Your task to perform on an android device: change the upload size in google photos Image 0: 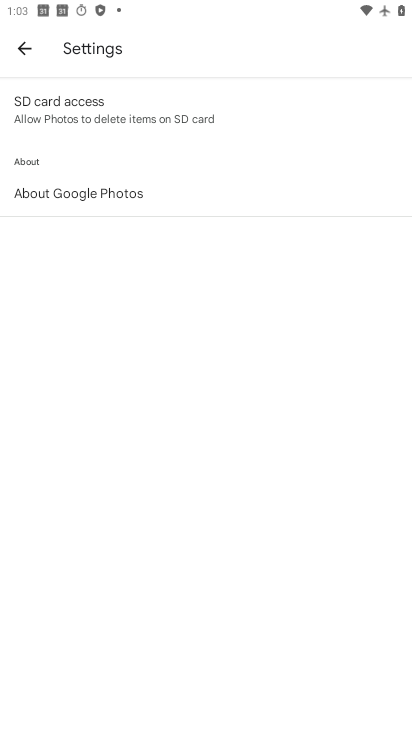
Step 0: press home button
Your task to perform on an android device: change the upload size in google photos Image 1: 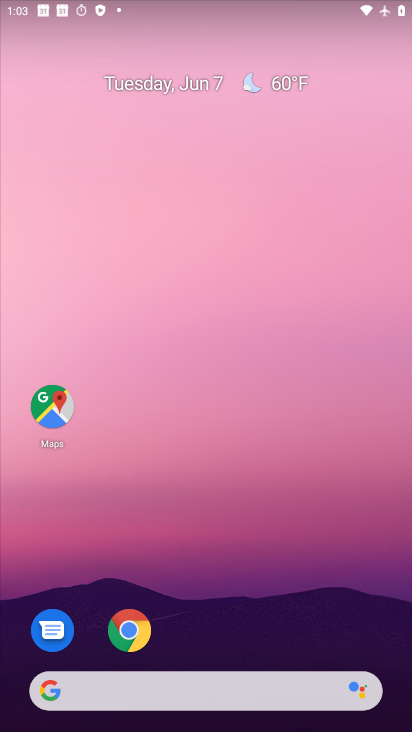
Step 1: drag from (400, 626) to (296, 91)
Your task to perform on an android device: change the upload size in google photos Image 2: 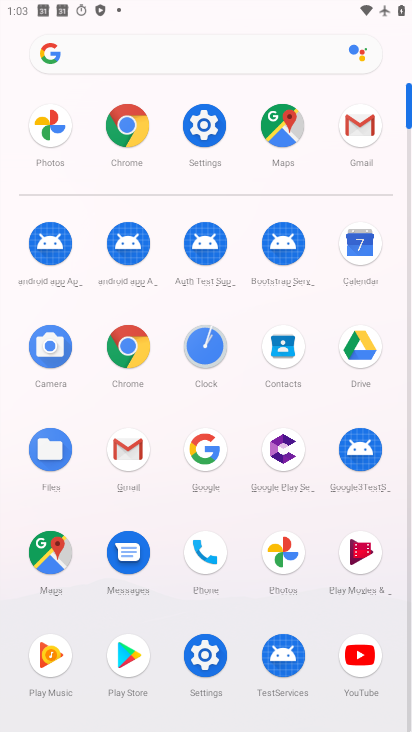
Step 2: click (280, 544)
Your task to perform on an android device: change the upload size in google photos Image 3: 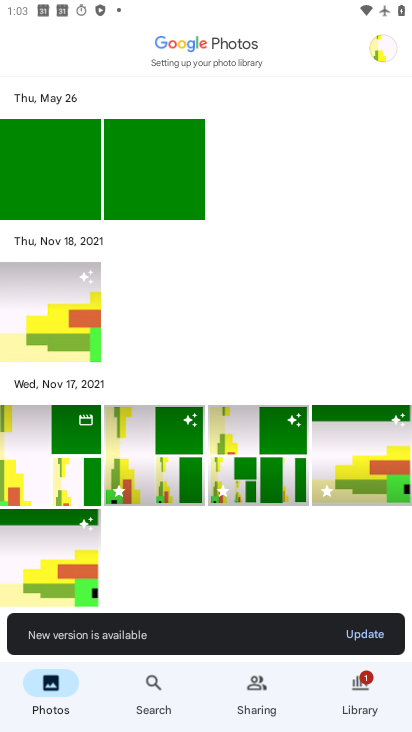
Step 3: click (390, 50)
Your task to perform on an android device: change the upload size in google photos Image 4: 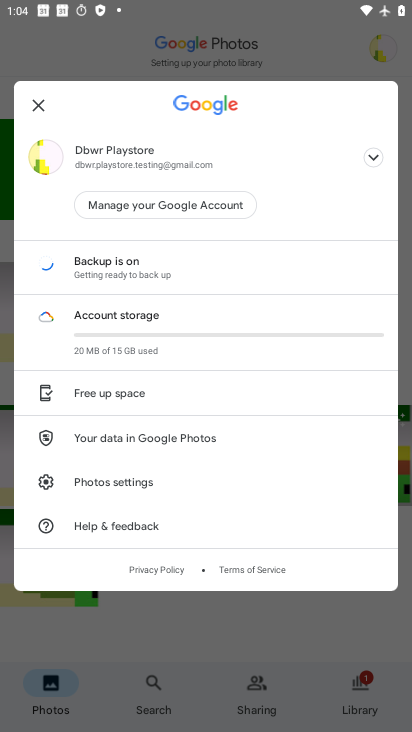
Step 4: click (142, 483)
Your task to perform on an android device: change the upload size in google photos Image 5: 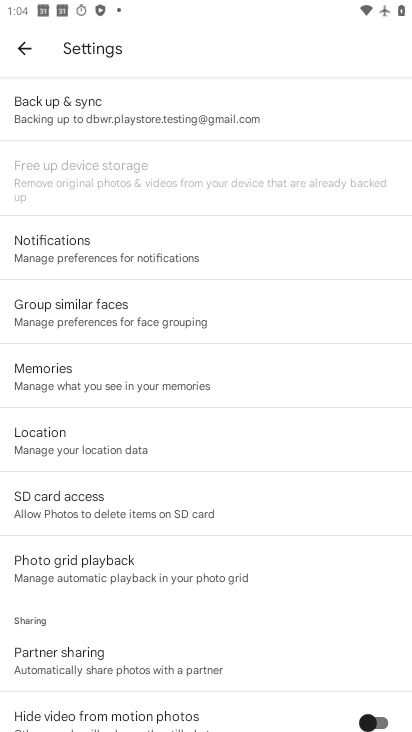
Step 5: click (113, 128)
Your task to perform on an android device: change the upload size in google photos Image 6: 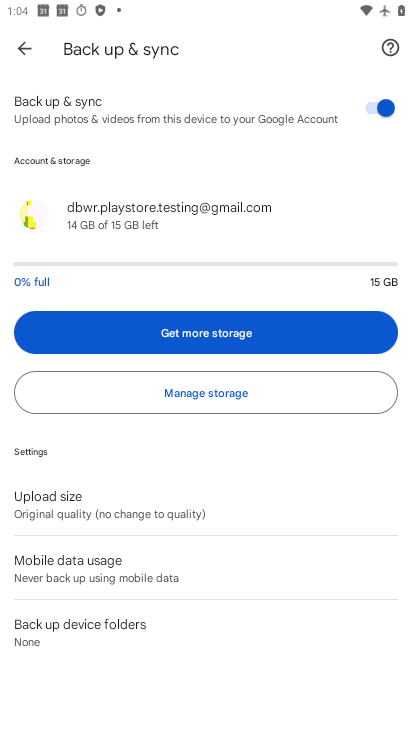
Step 6: click (152, 507)
Your task to perform on an android device: change the upload size in google photos Image 7: 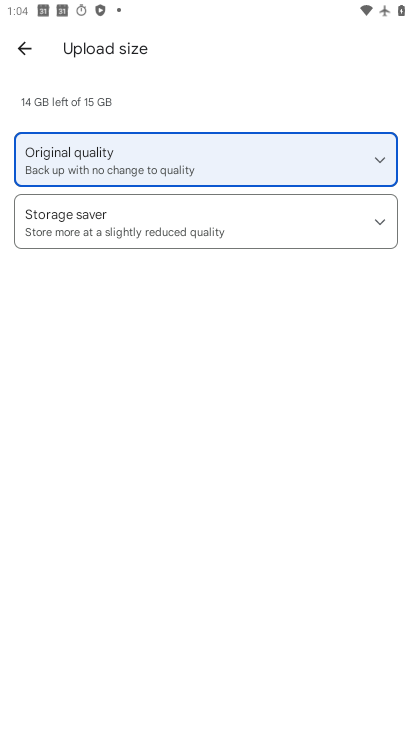
Step 7: click (131, 228)
Your task to perform on an android device: change the upload size in google photos Image 8: 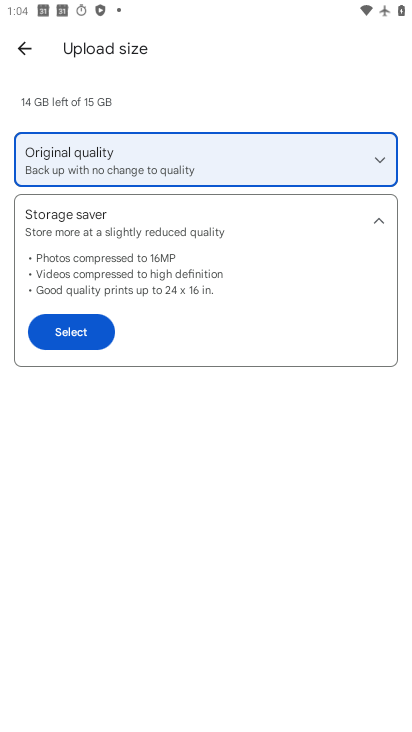
Step 8: click (64, 319)
Your task to perform on an android device: change the upload size in google photos Image 9: 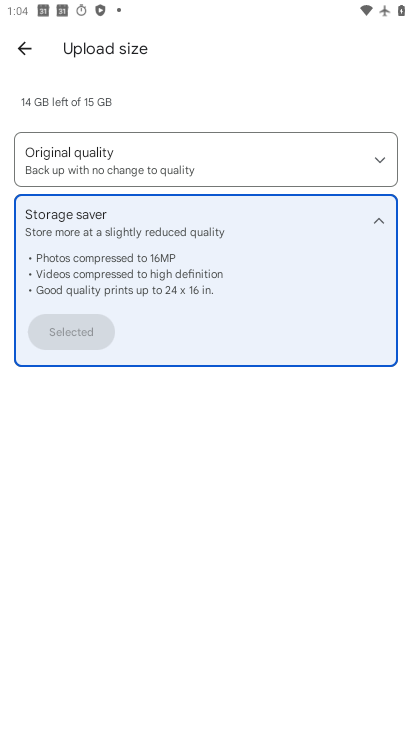
Step 9: task complete